Your task to perform on an android device: Go to wifi settings Image 0: 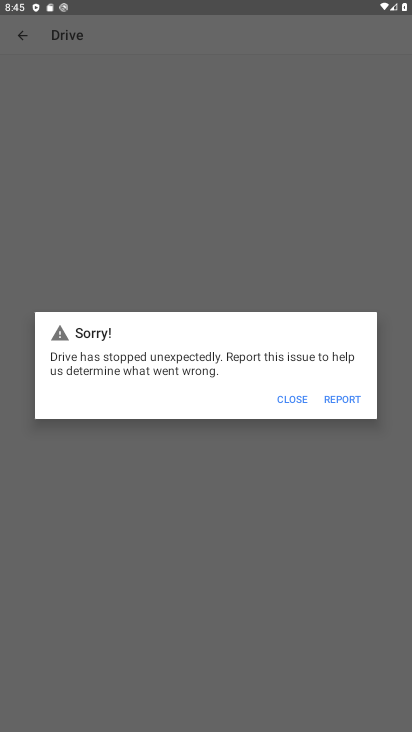
Step 0: press home button
Your task to perform on an android device: Go to wifi settings Image 1: 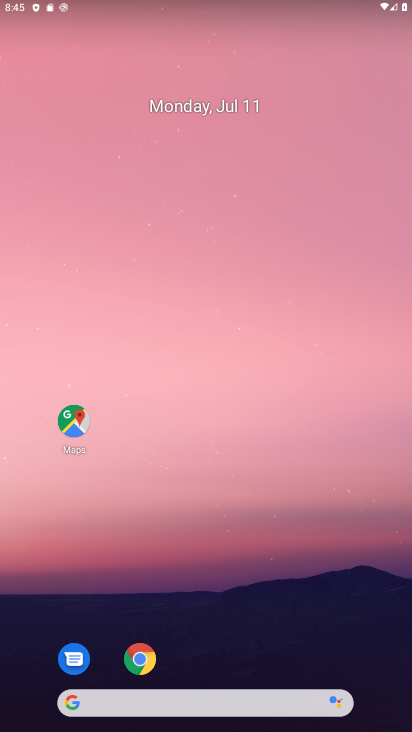
Step 1: drag from (207, 706) to (151, 157)
Your task to perform on an android device: Go to wifi settings Image 2: 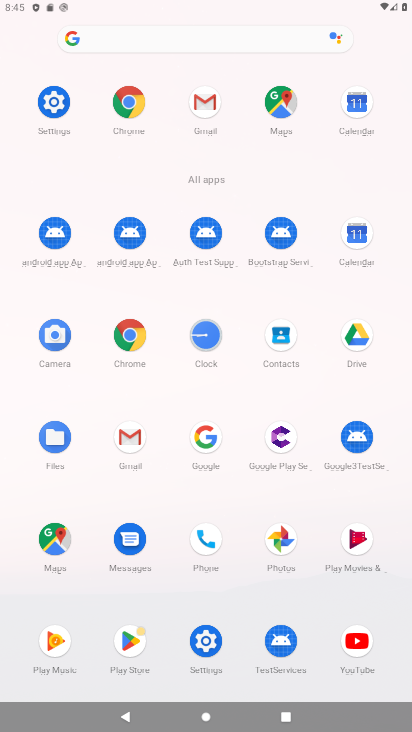
Step 2: click (61, 99)
Your task to perform on an android device: Go to wifi settings Image 3: 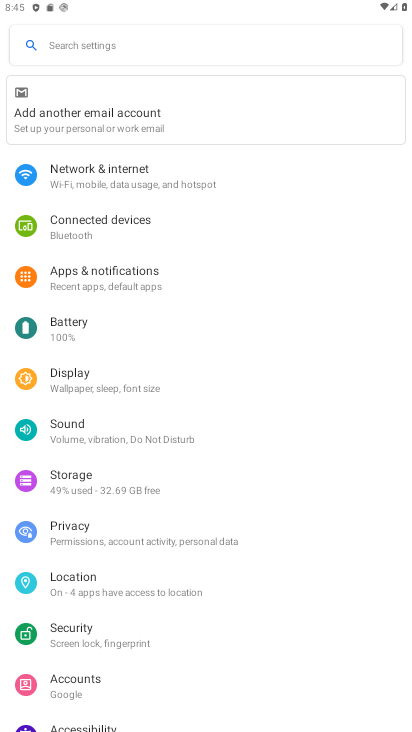
Step 3: click (119, 180)
Your task to perform on an android device: Go to wifi settings Image 4: 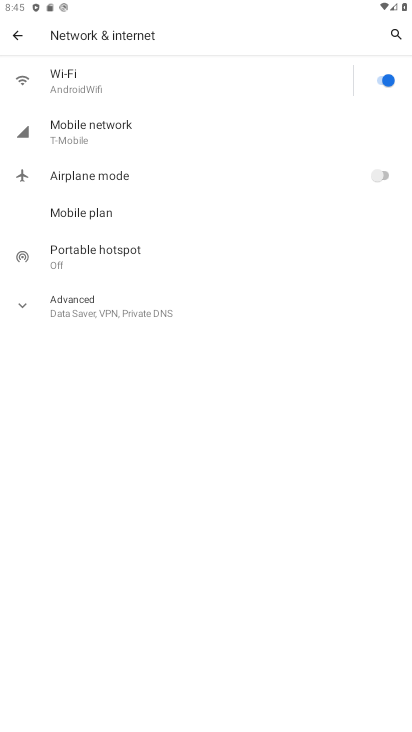
Step 4: click (77, 83)
Your task to perform on an android device: Go to wifi settings Image 5: 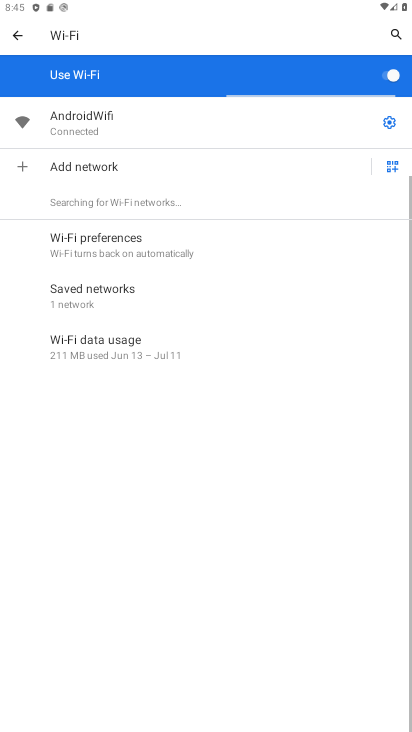
Step 5: task complete